Your task to perform on an android device: Clear the cart on target. Add "razer deathadder" to the cart on target, then select checkout. Image 0: 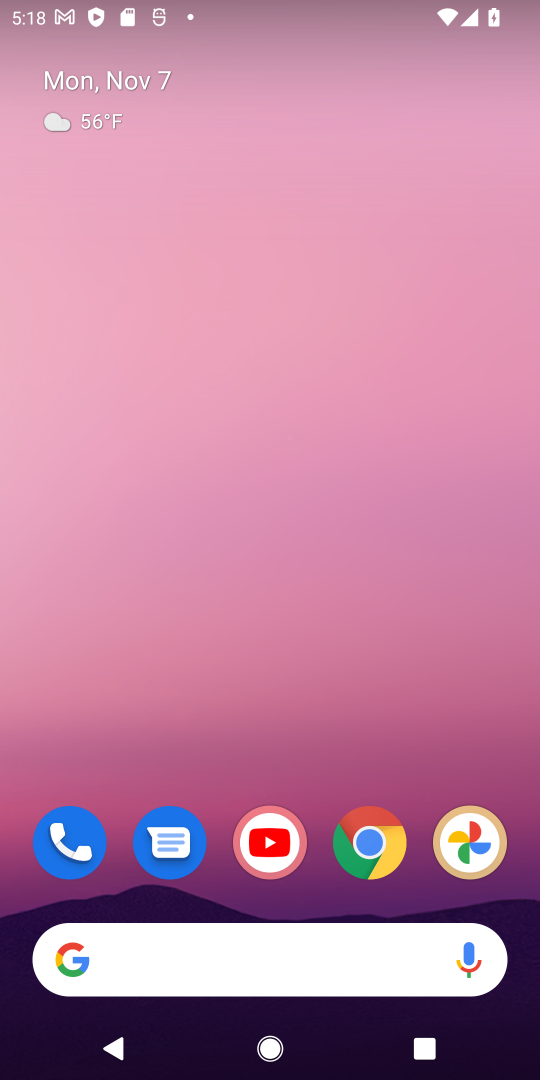
Step 0: click (374, 836)
Your task to perform on an android device: Clear the cart on target. Add "razer deathadder" to the cart on target, then select checkout. Image 1: 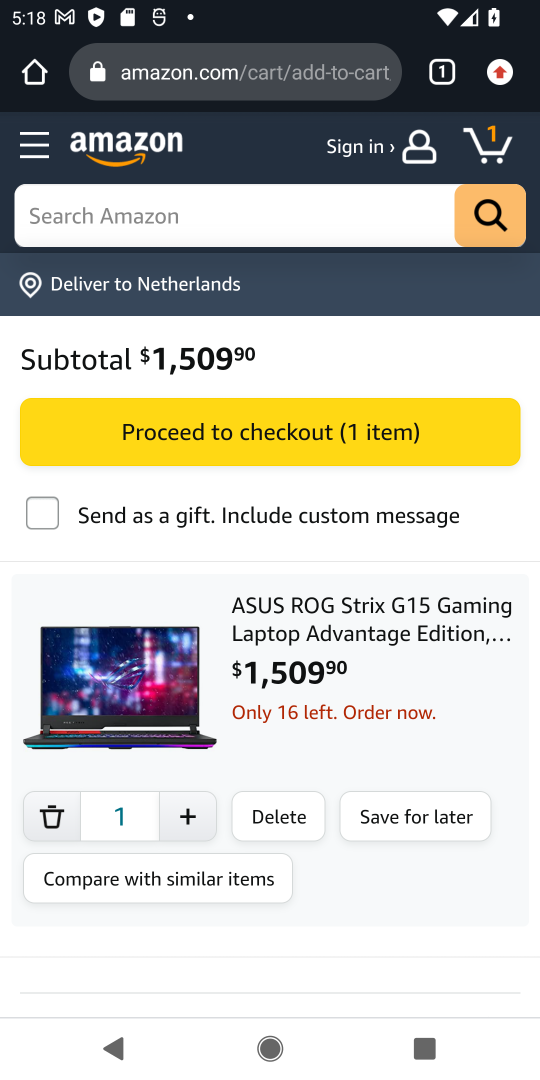
Step 1: click (311, 69)
Your task to perform on an android device: Clear the cart on target. Add "razer deathadder" to the cart on target, then select checkout. Image 2: 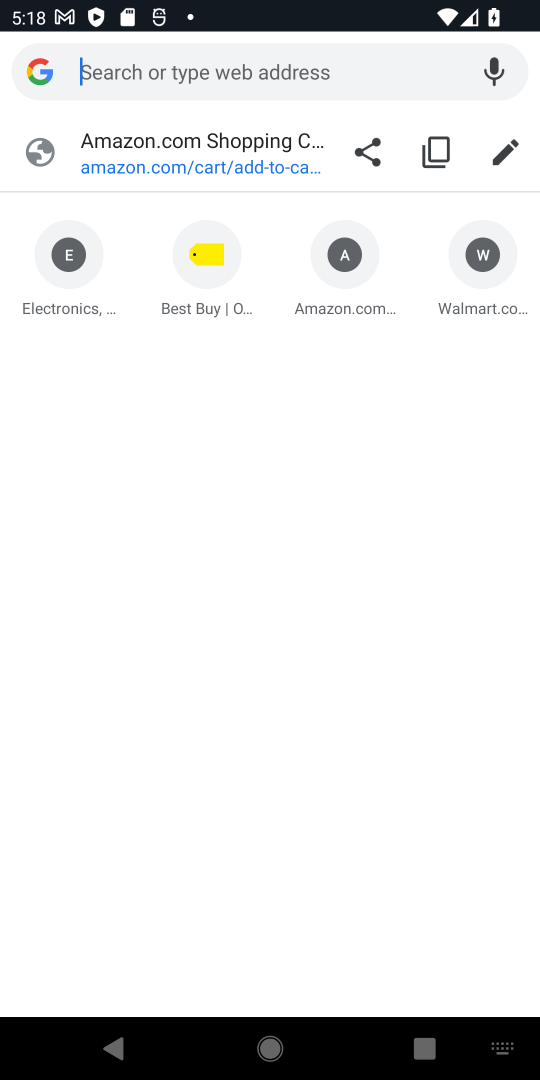
Step 2: type "target"
Your task to perform on an android device: Clear the cart on target. Add "razer deathadder" to the cart on target, then select checkout. Image 3: 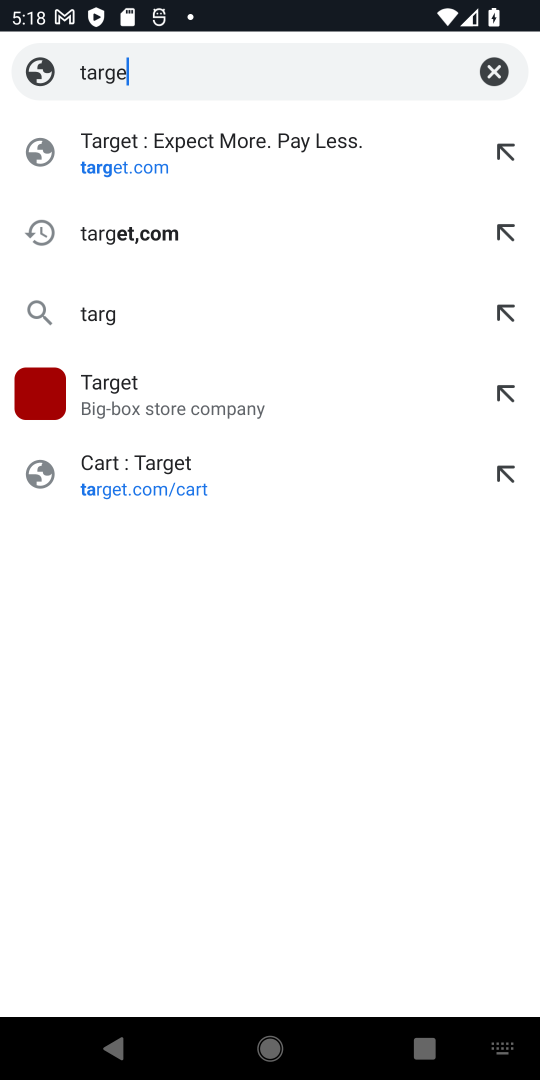
Step 3: press enter
Your task to perform on an android device: Clear the cart on target. Add "razer deathadder" to the cart on target, then select checkout. Image 4: 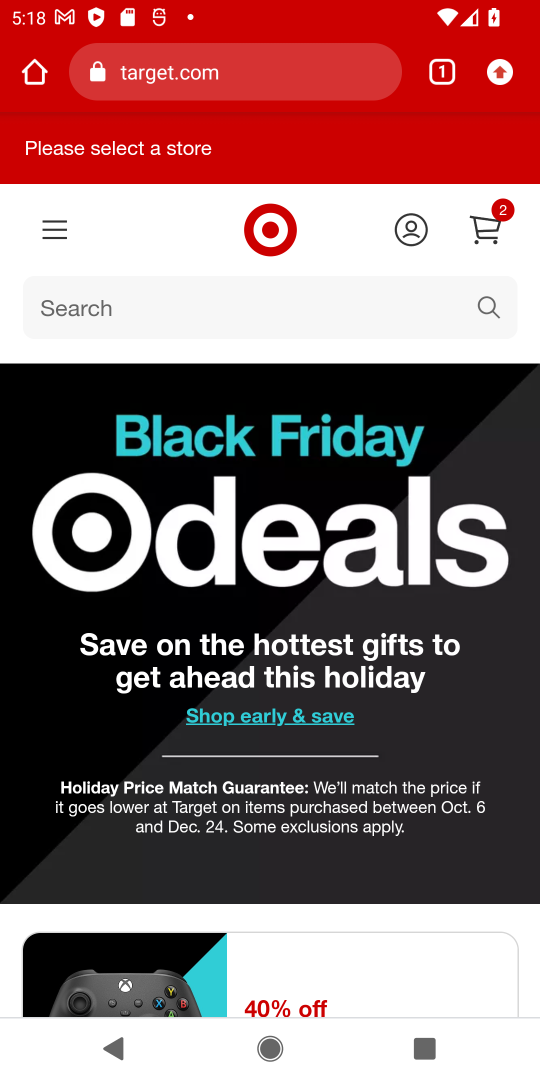
Step 4: click (200, 304)
Your task to perform on an android device: Clear the cart on target. Add "razer deathadder" to the cart on target, then select checkout. Image 5: 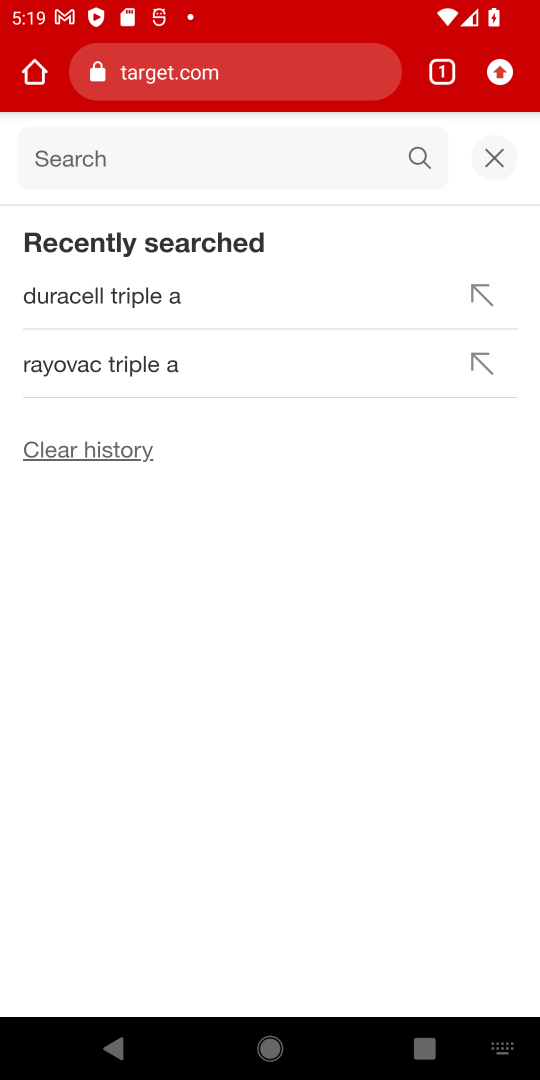
Step 5: type "razer deathadder"
Your task to perform on an android device: Clear the cart on target. Add "razer deathadder" to the cart on target, then select checkout. Image 6: 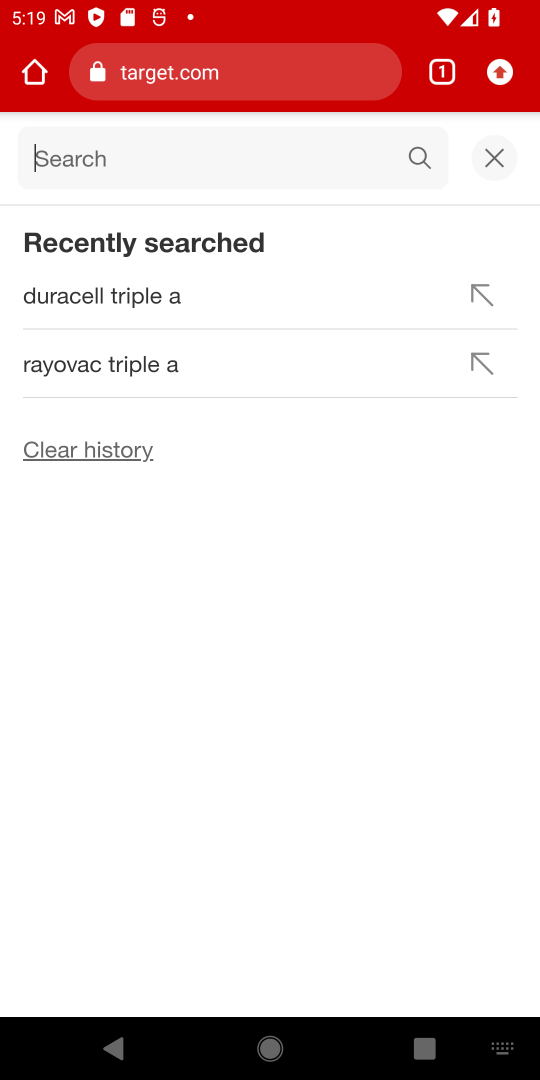
Step 6: press enter
Your task to perform on an android device: Clear the cart on target. Add "razer deathadder" to the cart on target, then select checkout. Image 7: 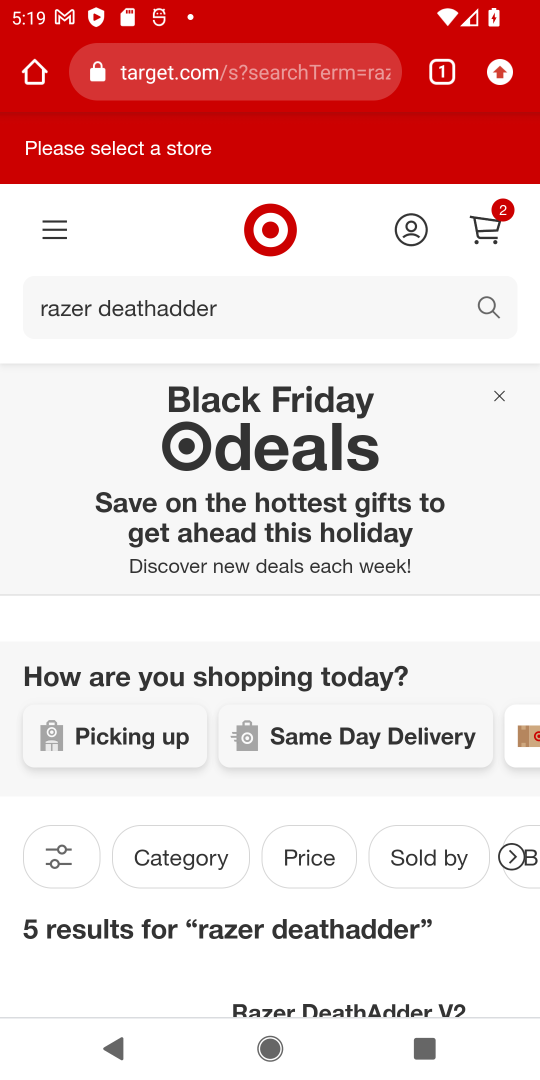
Step 7: drag from (346, 867) to (495, 269)
Your task to perform on an android device: Clear the cart on target. Add "razer deathadder" to the cart on target, then select checkout. Image 8: 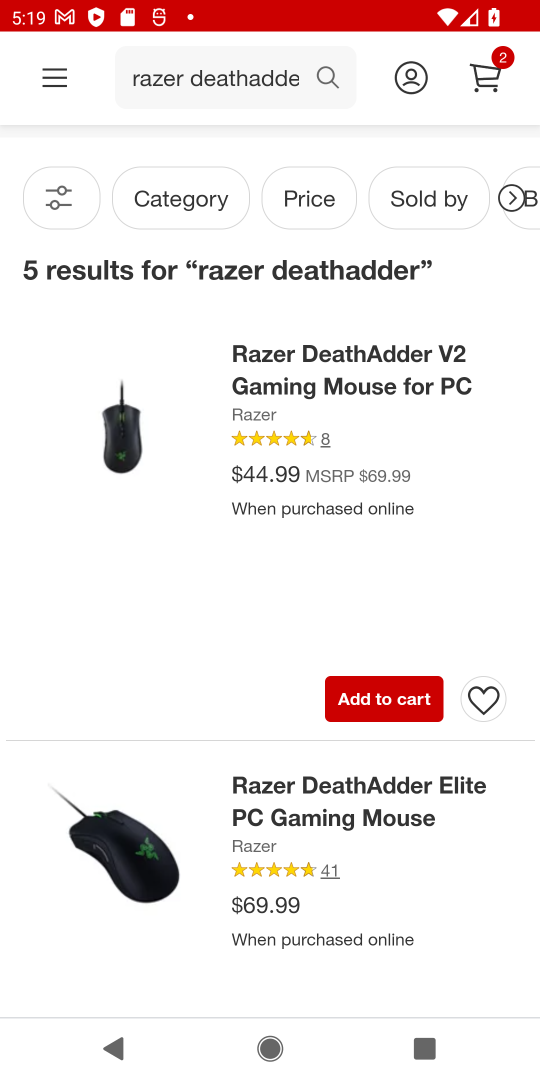
Step 8: click (371, 695)
Your task to perform on an android device: Clear the cart on target. Add "razer deathadder" to the cart on target, then select checkout. Image 9: 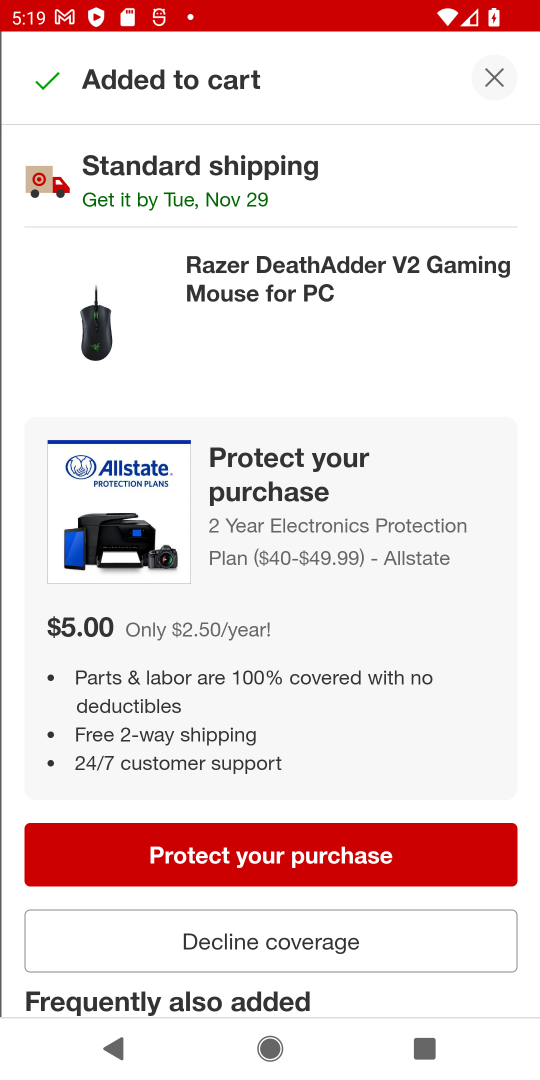
Step 9: click (281, 936)
Your task to perform on an android device: Clear the cart on target. Add "razer deathadder" to the cart on target, then select checkout. Image 10: 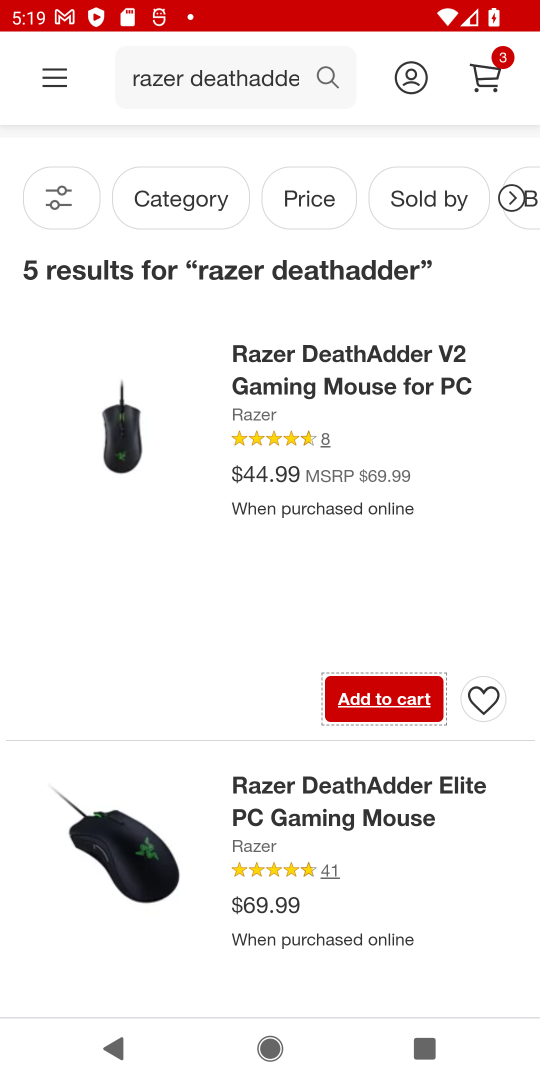
Step 10: click (487, 75)
Your task to perform on an android device: Clear the cart on target. Add "razer deathadder" to the cart on target, then select checkout. Image 11: 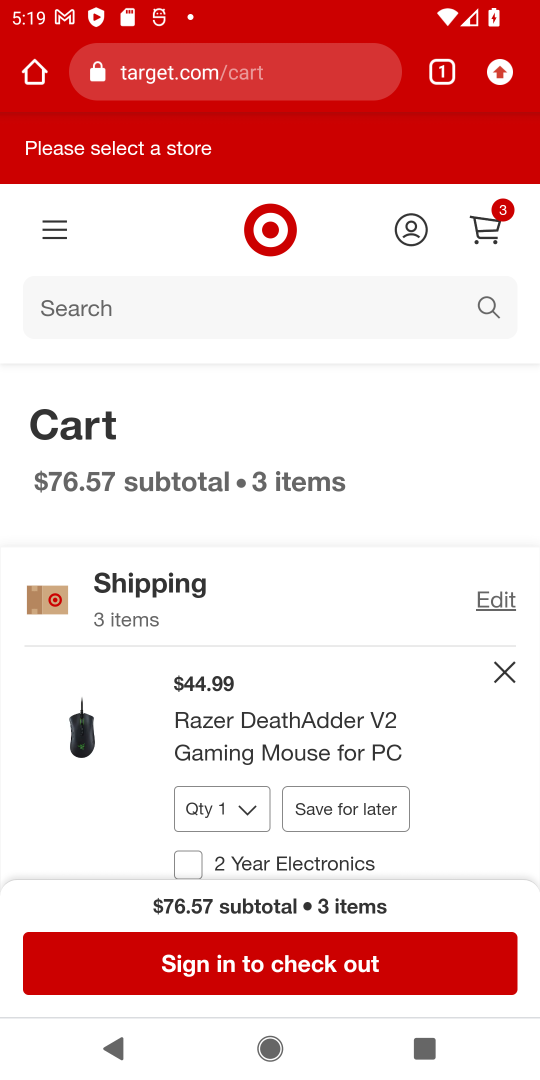
Step 11: drag from (168, 710) to (467, 135)
Your task to perform on an android device: Clear the cart on target. Add "razer deathadder" to the cart on target, then select checkout. Image 12: 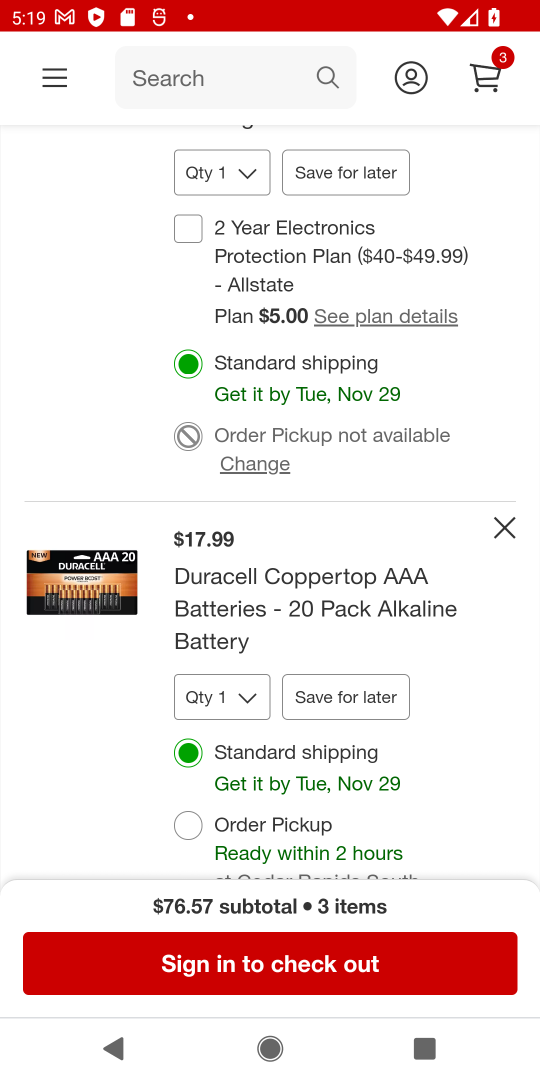
Step 12: click (503, 527)
Your task to perform on an android device: Clear the cart on target. Add "razer deathadder" to the cart on target, then select checkout. Image 13: 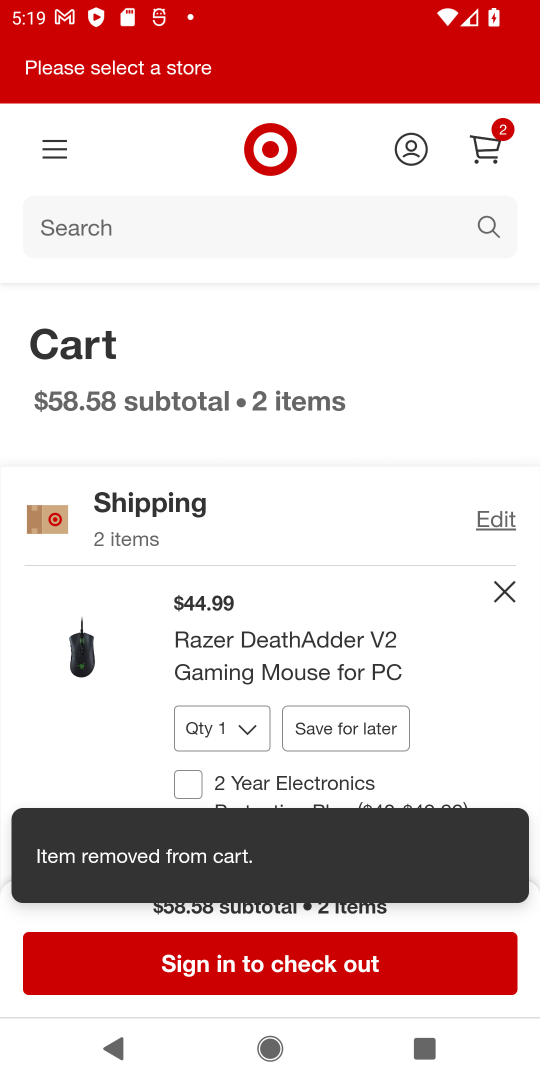
Step 13: drag from (189, 725) to (495, 45)
Your task to perform on an android device: Clear the cart on target. Add "razer deathadder" to the cart on target, then select checkout. Image 14: 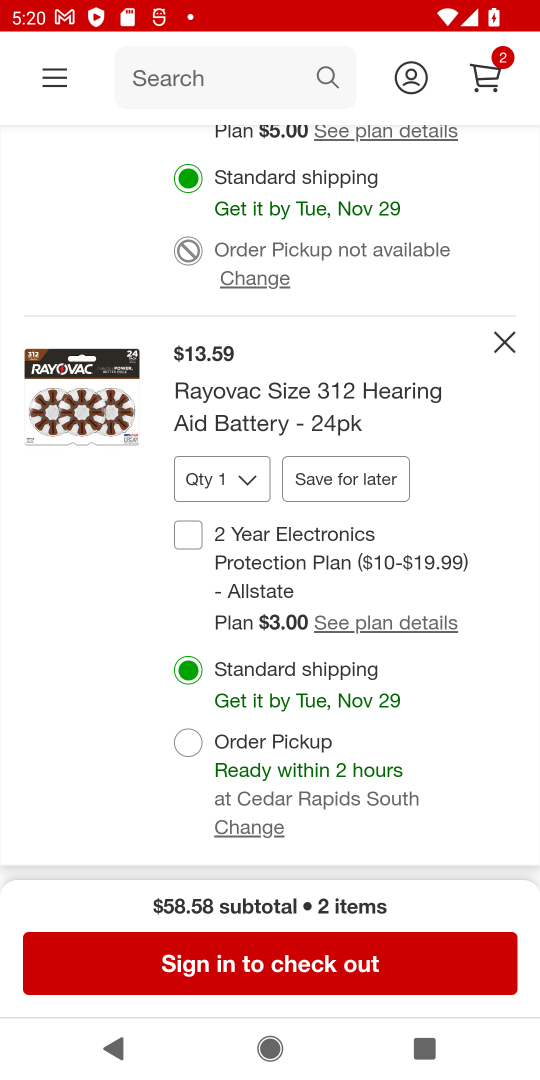
Step 14: drag from (125, 750) to (479, 48)
Your task to perform on an android device: Clear the cart on target. Add "razer deathadder" to the cart on target, then select checkout. Image 15: 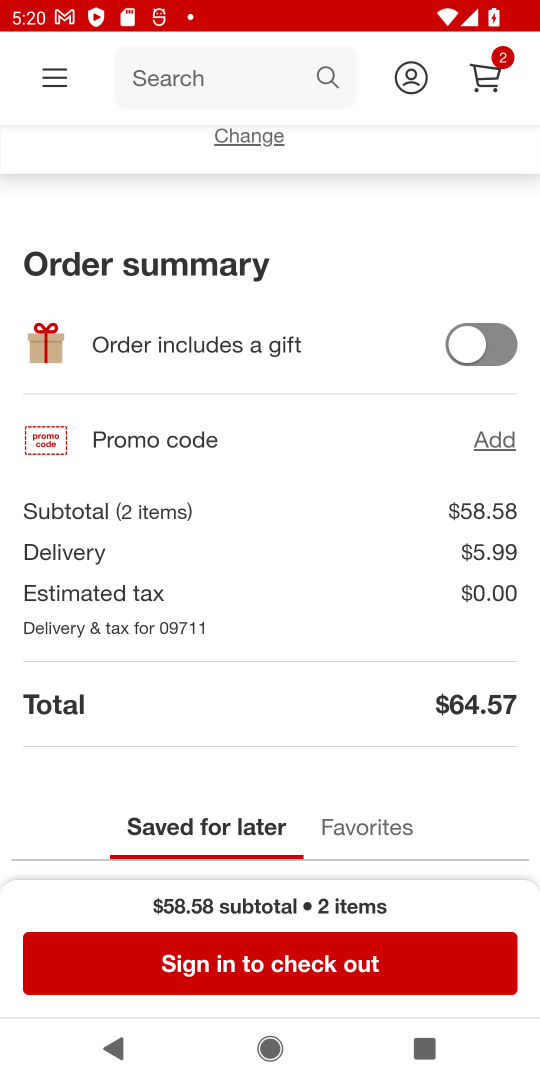
Step 15: drag from (342, 699) to (429, 876)
Your task to perform on an android device: Clear the cart on target. Add "razer deathadder" to the cart on target, then select checkout. Image 16: 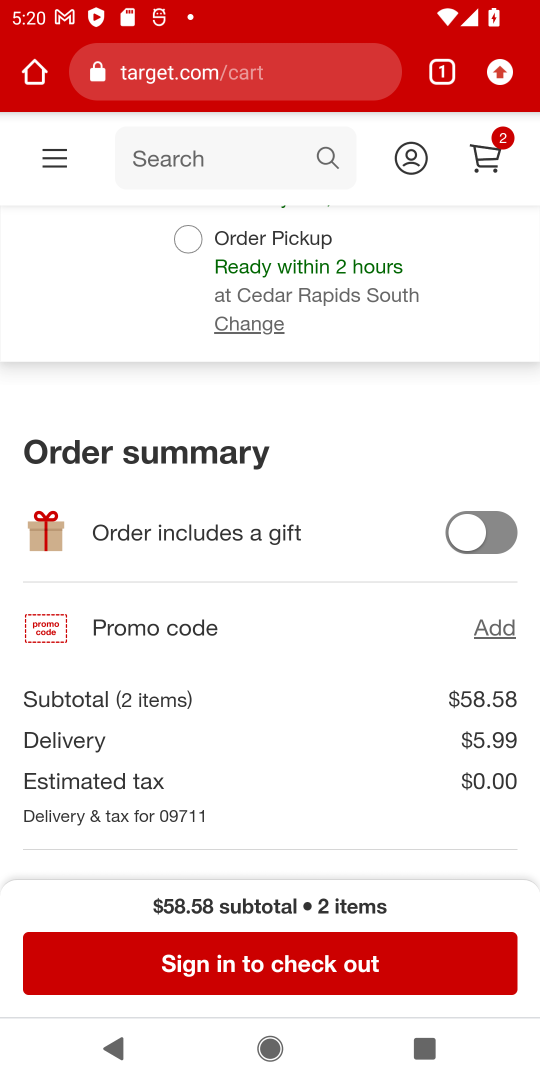
Step 16: drag from (395, 440) to (360, 885)
Your task to perform on an android device: Clear the cart on target. Add "razer deathadder" to the cart on target, then select checkout. Image 17: 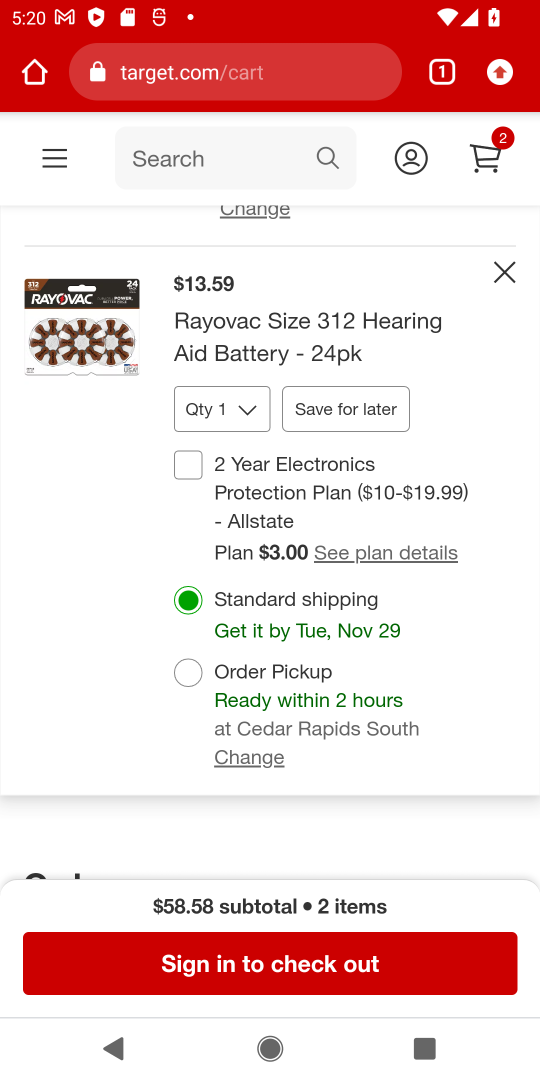
Step 17: click (508, 265)
Your task to perform on an android device: Clear the cart on target. Add "razer deathadder" to the cart on target, then select checkout. Image 18: 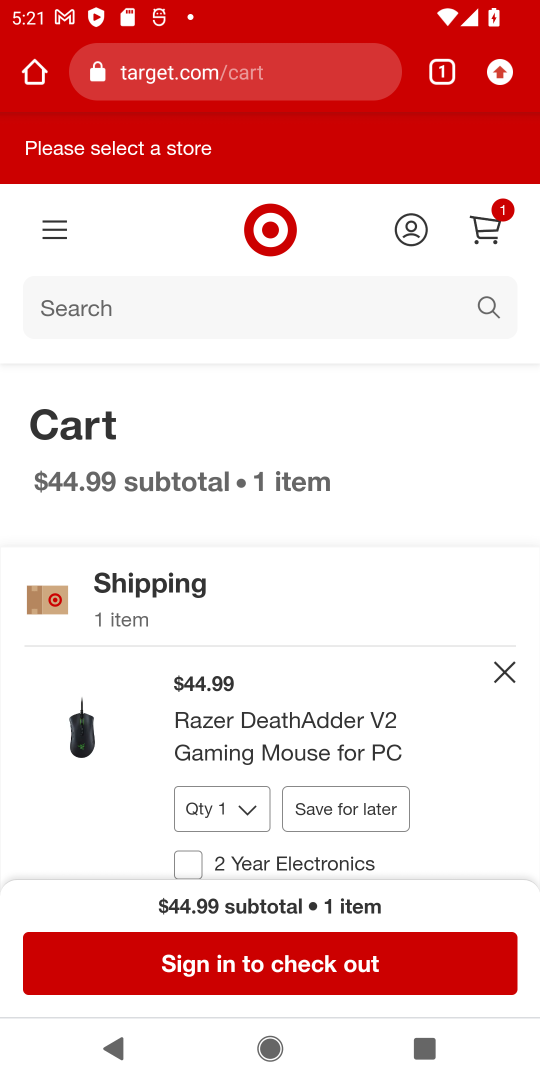
Step 18: task complete